Your task to perform on an android device: turn on wifi Image 0: 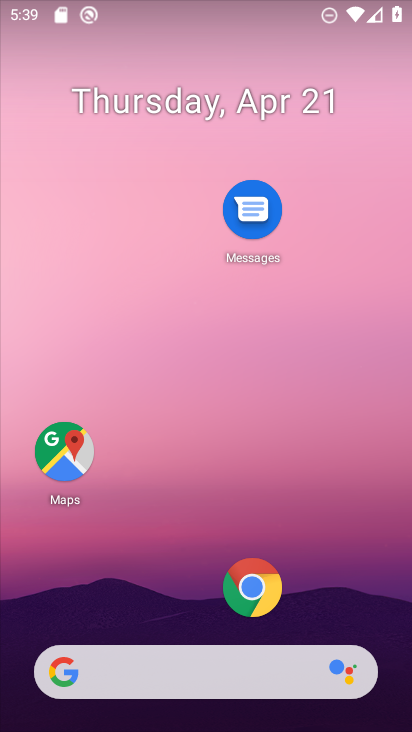
Step 0: drag from (200, 614) to (204, 95)
Your task to perform on an android device: turn on wifi Image 1: 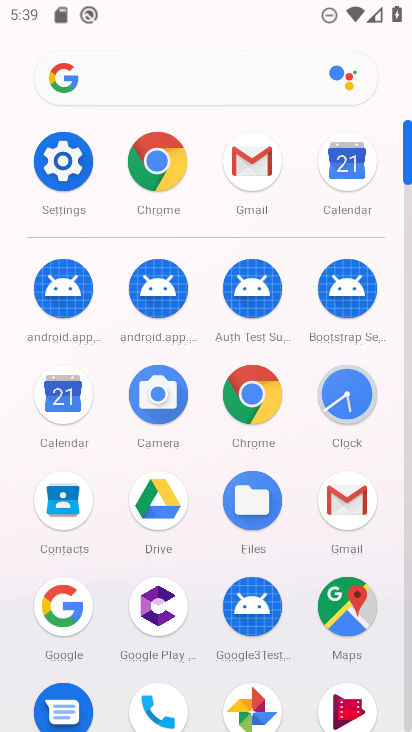
Step 1: click (60, 161)
Your task to perform on an android device: turn on wifi Image 2: 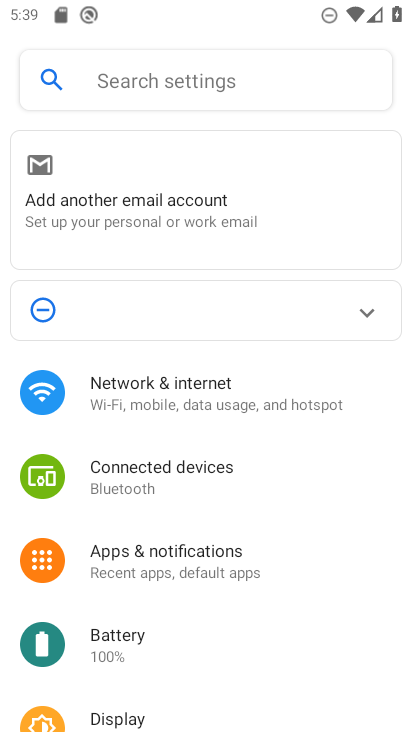
Step 2: click (213, 403)
Your task to perform on an android device: turn on wifi Image 3: 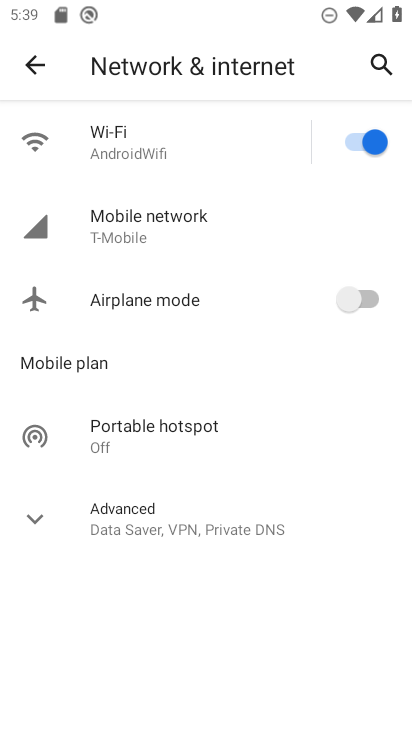
Step 3: task complete